Your task to perform on an android device: turn off data saver in the chrome app Image 0: 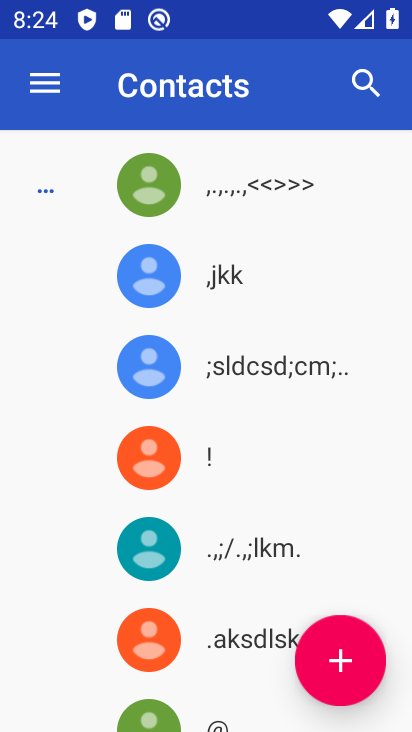
Step 0: press home button
Your task to perform on an android device: turn off data saver in the chrome app Image 1: 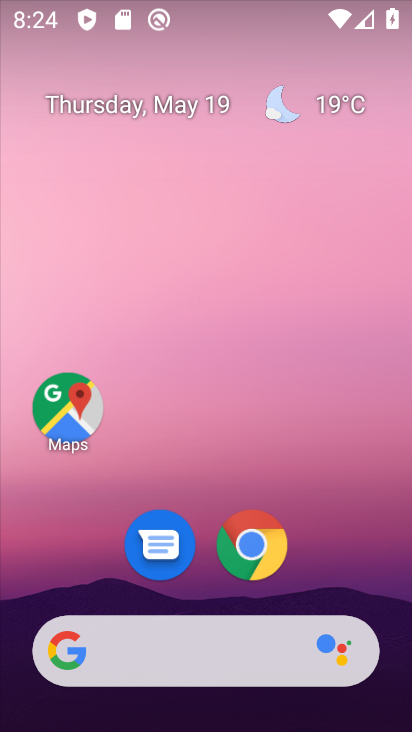
Step 1: click (266, 540)
Your task to perform on an android device: turn off data saver in the chrome app Image 2: 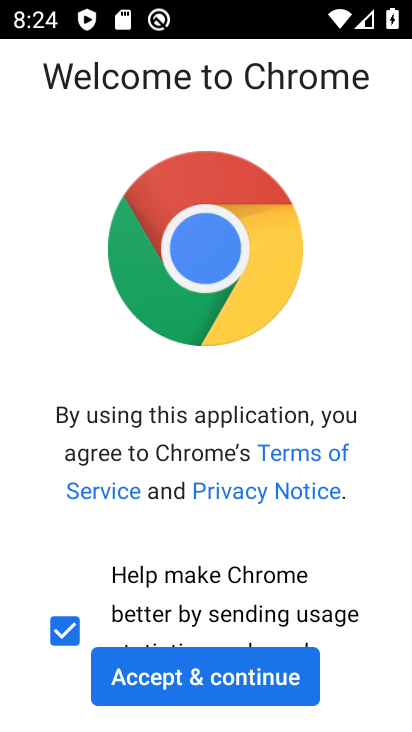
Step 2: click (240, 652)
Your task to perform on an android device: turn off data saver in the chrome app Image 3: 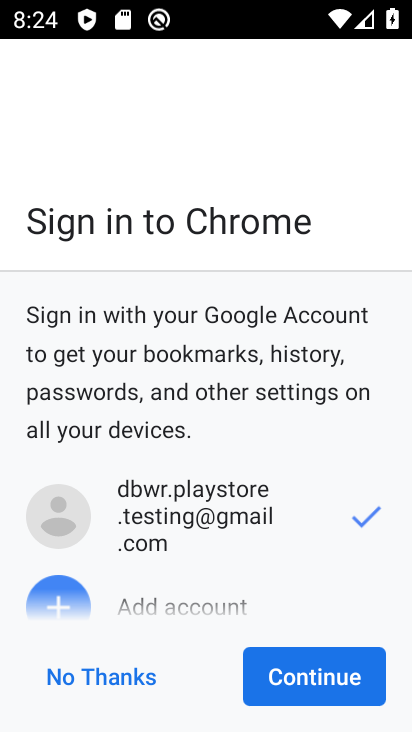
Step 3: click (293, 661)
Your task to perform on an android device: turn off data saver in the chrome app Image 4: 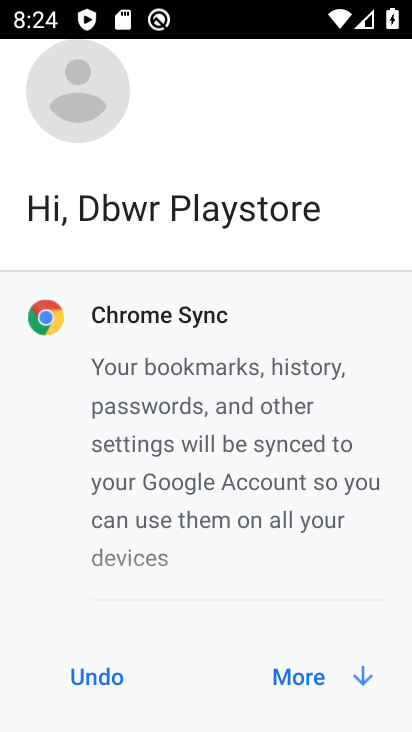
Step 4: click (293, 661)
Your task to perform on an android device: turn off data saver in the chrome app Image 5: 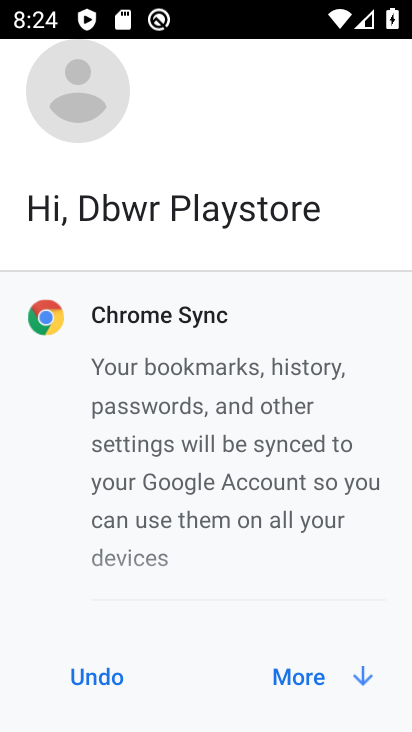
Step 5: click (293, 661)
Your task to perform on an android device: turn off data saver in the chrome app Image 6: 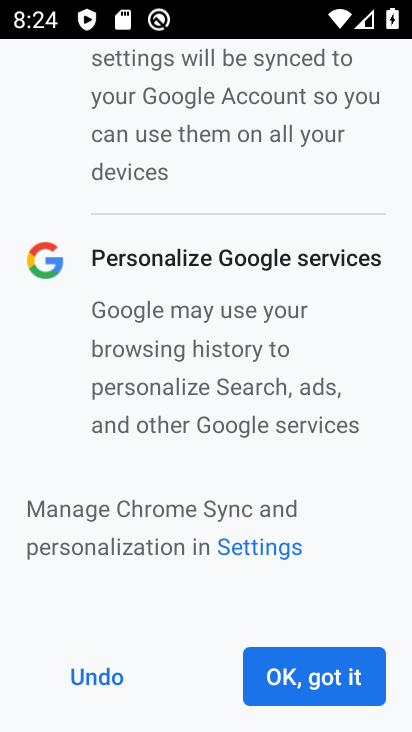
Step 6: click (293, 661)
Your task to perform on an android device: turn off data saver in the chrome app Image 7: 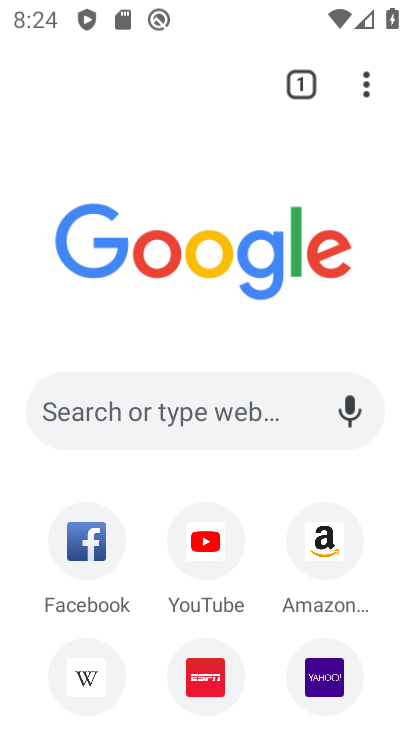
Step 7: click (370, 101)
Your task to perform on an android device: turn off data saver in the chrome app Image 8: 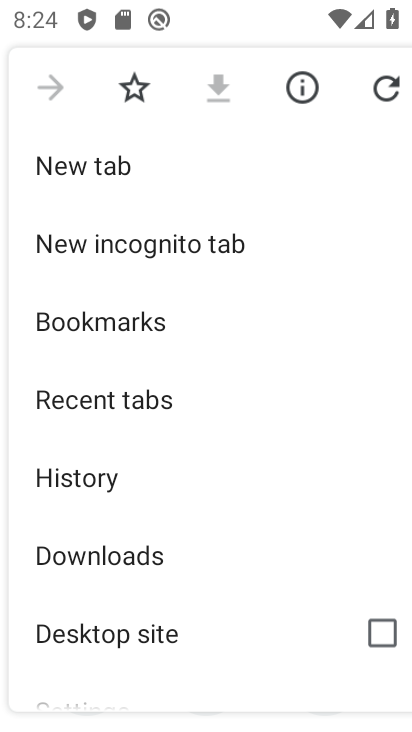
Step 8: drag from (160, 640) to (158, 314)
Your task to perform on an android device: turn off data saver in the chrome app Image 9: 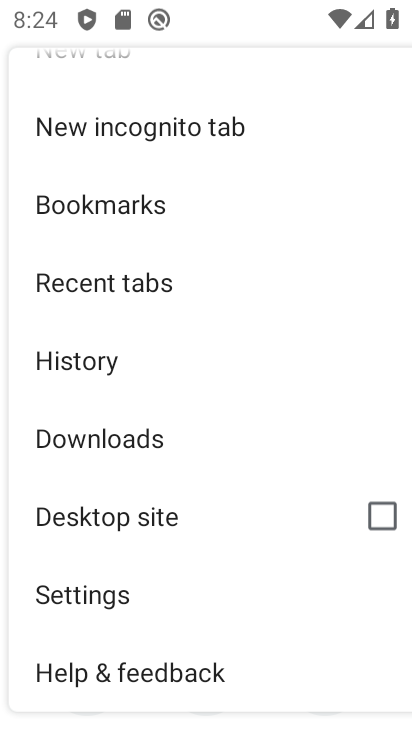
Step 9: click (105, 577)
Your task to perform on an android device: turn off data saver in the chrome app Image 10: 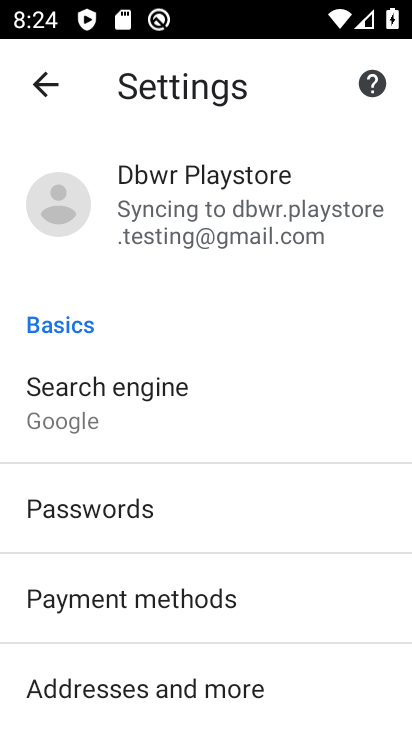
Step 10: drag from (178, 651) to (173, 248)
Your task to perform on an android device: turn off data saver in the chrome app Image 11: 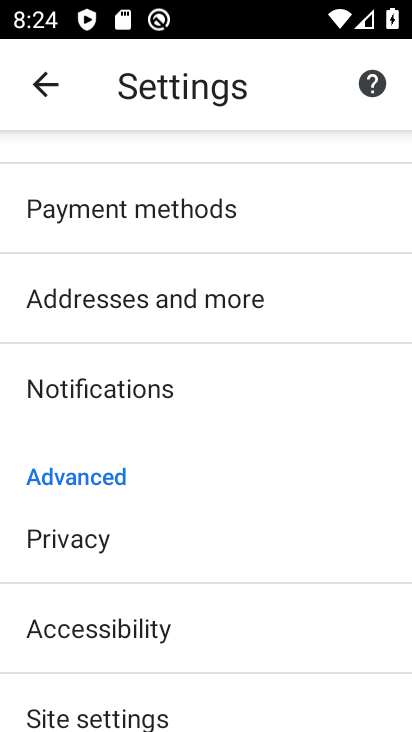
Step 11: click (97, 701)
Your task to perform on an android device: turn off data saver in the chrome app Image 12: 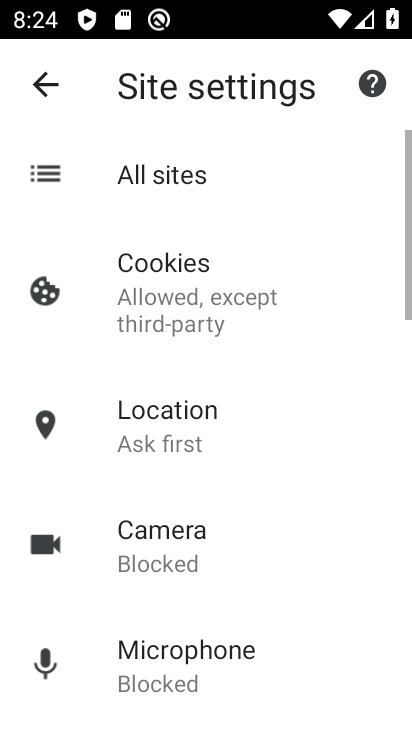
Step 12: click (48, 87)
Your task to perform on an android device: turn off data saver in the chrome app Image 13: 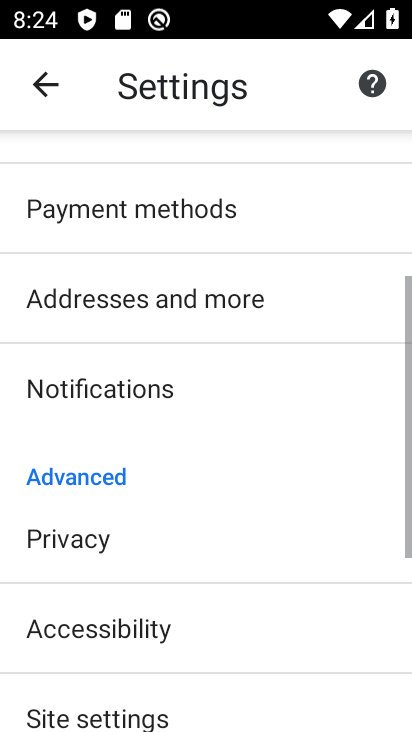
Step 13: drag from (276, 619) to (277, 276)
Your task to perform on an android device: turn off data saver in the chrome app Image 14: 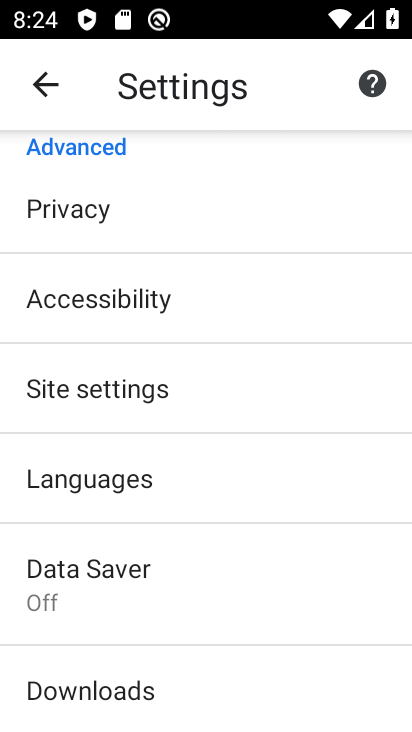
Step 14: click (167, 607)
Your task to perform on an android device: turn off data saver in the chrome app Image 15: 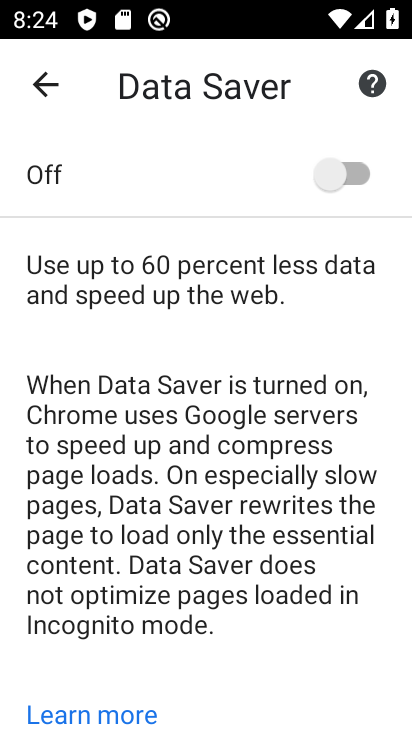
Step 15: click (348, 144)
Your task to perform on an android device: turn off data saver in the chrome app Image 16: 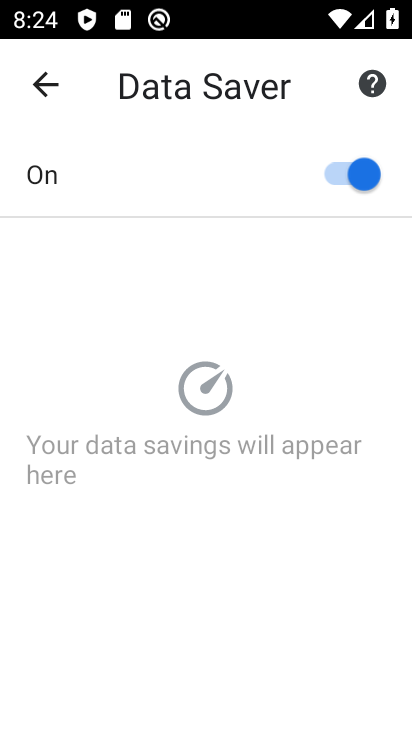
Step 16: task complete